Your task to perform on an android device: create a new album in the google photos Image 0: 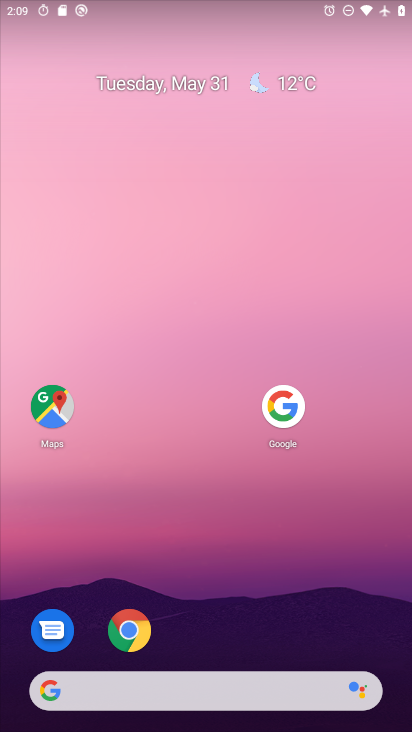
Step 0: press home button
Your task to perform on an android device: create a new album in the google photos Image 1: 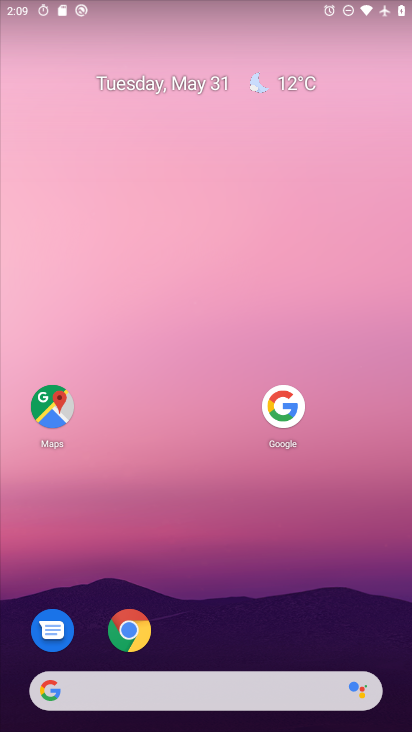
Step 1: drag from (164, 688) to (275, 128)
Your task to perform on an android device: create a new album in the google photos Image 2: 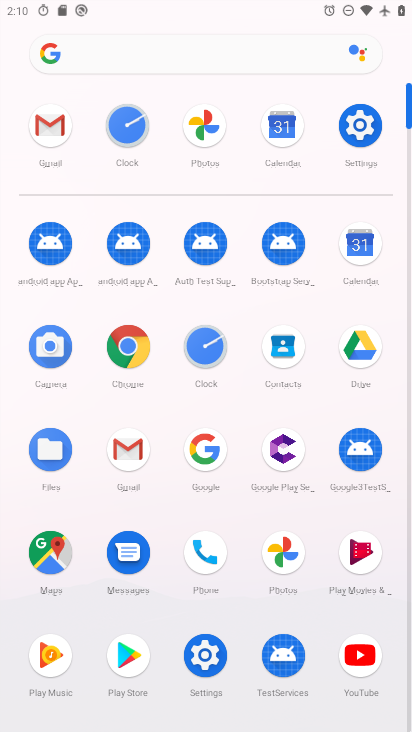
Step 2: click (287, 553)
Your task to perform on an android device: create a new album in the google photos Image 3: 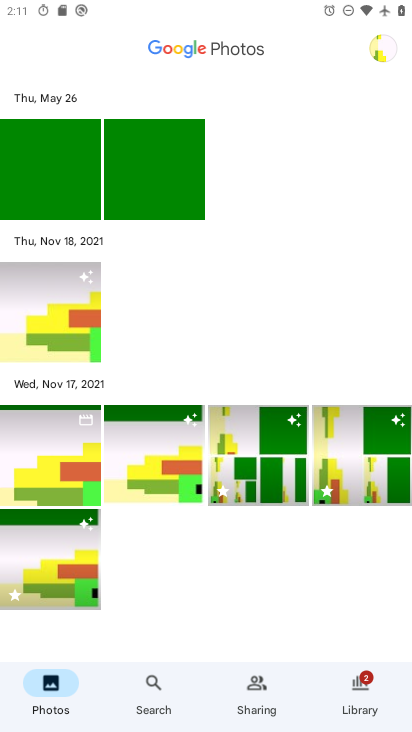
Step 3: click (156, 703)
Your task to perform on an android device: create a new album in the google photos Image 4: 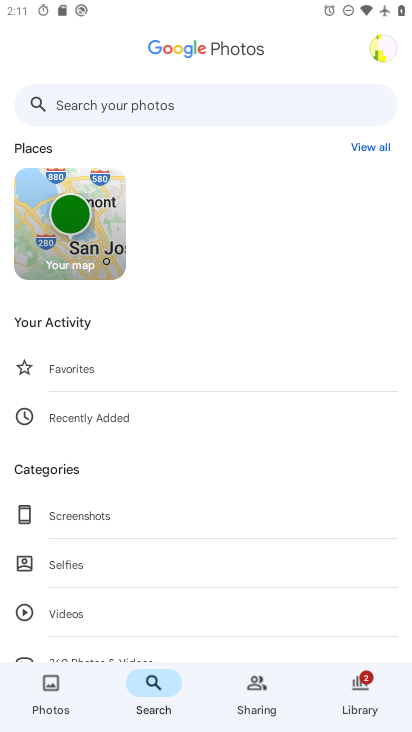
Step 4: click (351, 689)
Your task to perform on an android device: create a new album in the google photos Image 5: 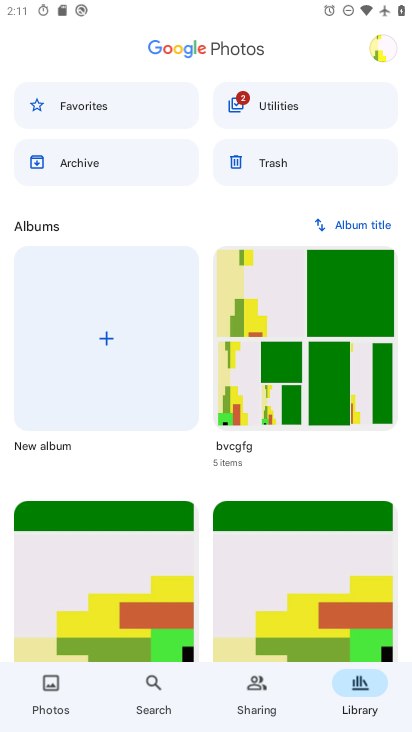
Step 5: click (104, 335)
Your task to perform on an android device: create a new album in the google photos Image 6: 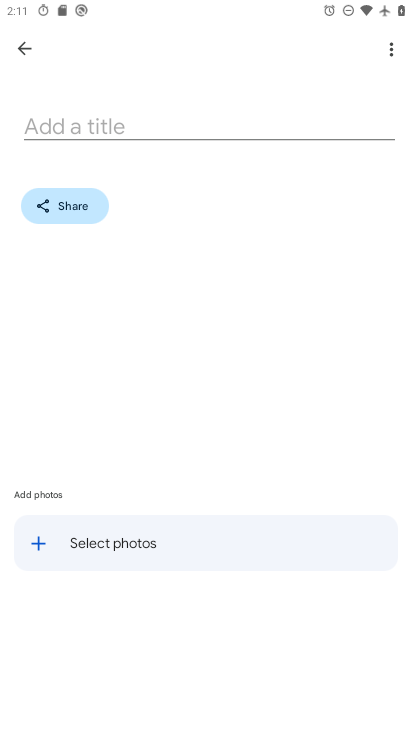
Step 6: click (122, 543)
Your task to perform on an android device: create a new album in the google photos Image 7: 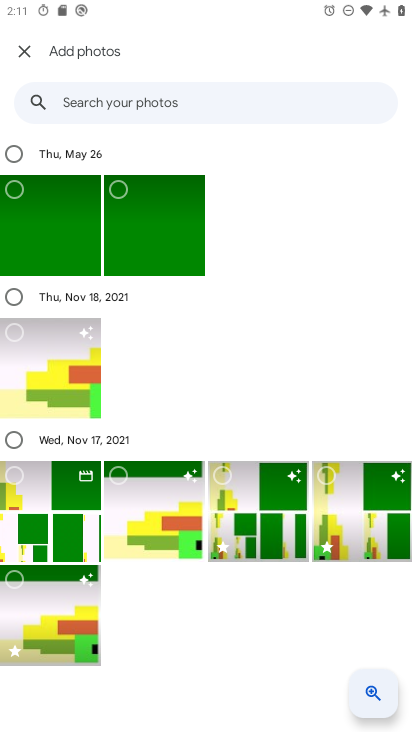
Step 7: click (55, 225)
Your task to perform on an android device: create a new album in the google photos Image 8: 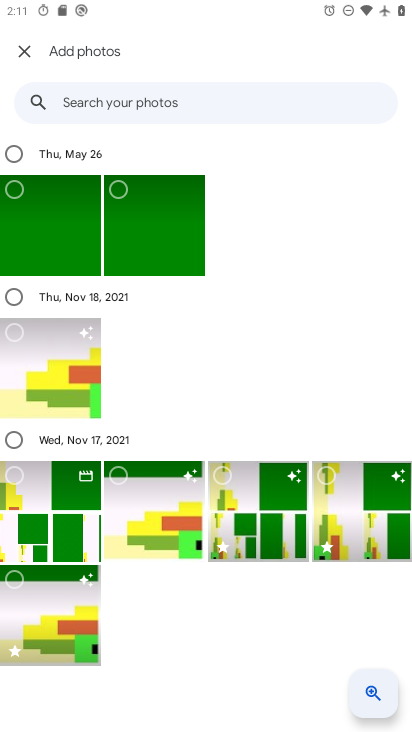
Step 8: click (134, 204)
Your task to perform on an android device: create a new album in the google photos Image 9: 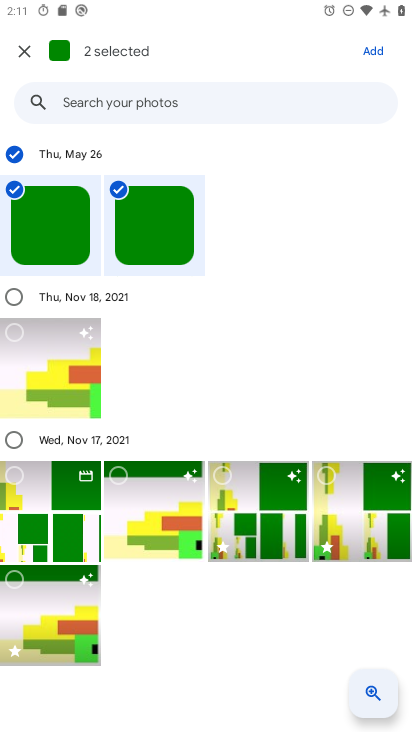
Step 9: click (49, 359)
Your task to perform on an android device: create a new album in the google photos Image 10: 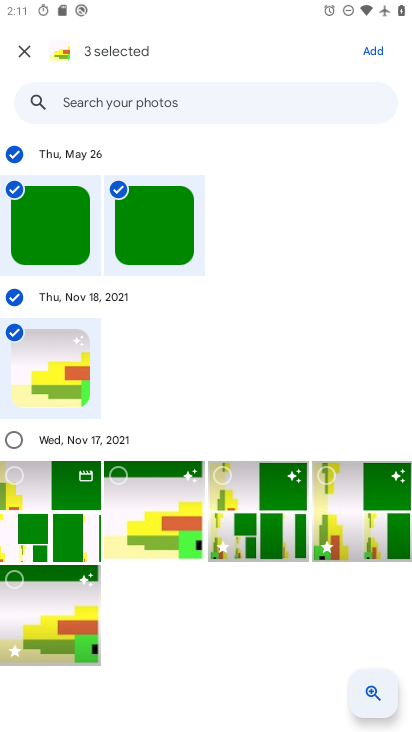
Step 10: click (378, 50)
Your task to perform on an android device: create a new album in the google photos Image 11: 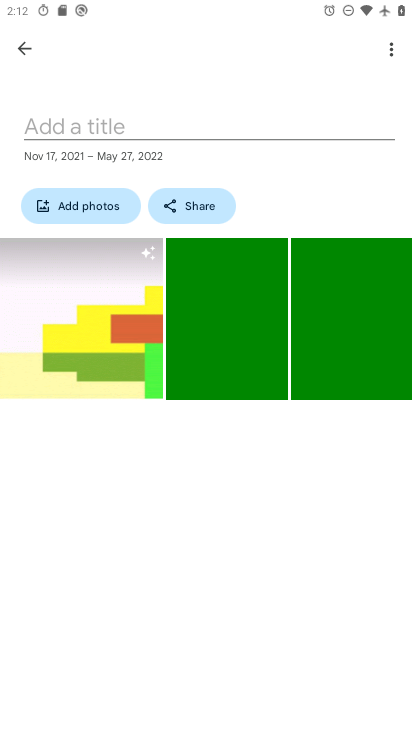
Step 11: task complete